Your task to perform on an android device: Open sound settings Image 0: 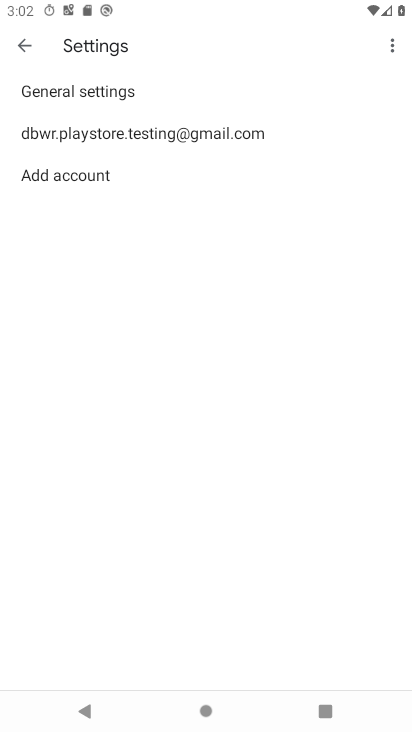
Step 0: press home button
Your task to perform on an android device: Open sound settings Image 1: 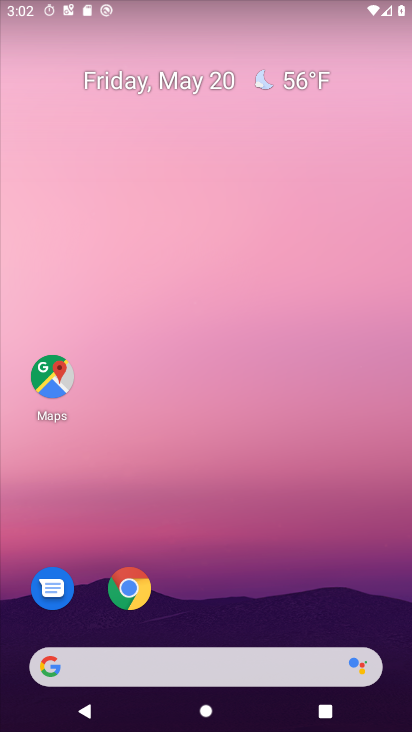
Step 1: drag from (29, 558) to (215, 108)
Your task to perform on an android device: Open sound settings Image 2: 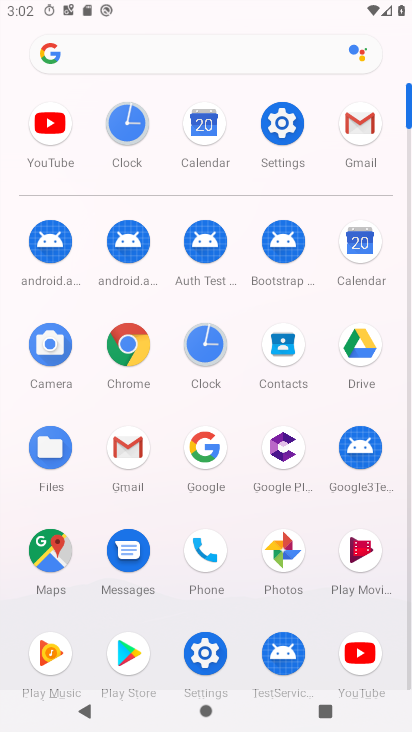
Step 2: click (269, 130)
Your task to perform on an android device: Open sound settings Image 3: 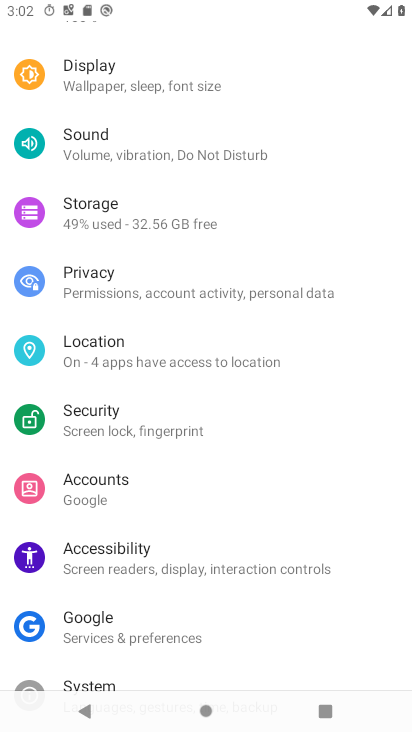
Step 3: click (143, 158)
Your task to perform on an android device: Open sound settings Image 4: 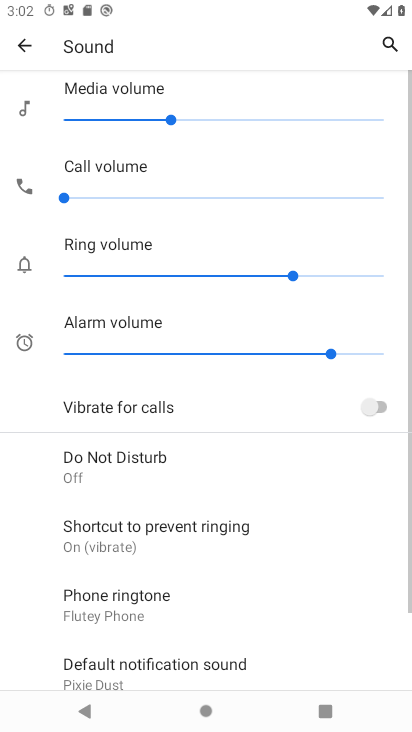
Step 4: task complete